Your task to perform on an android device: Go to eBay Image 0: 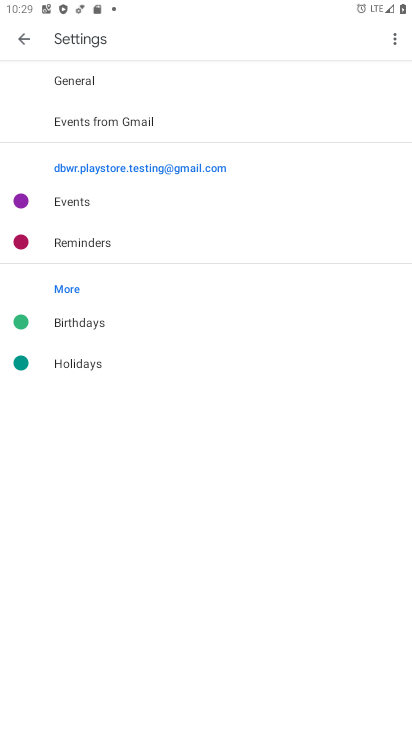
Step 0: press home button
Your task to perform on an android device: Go to eBay Image 1: 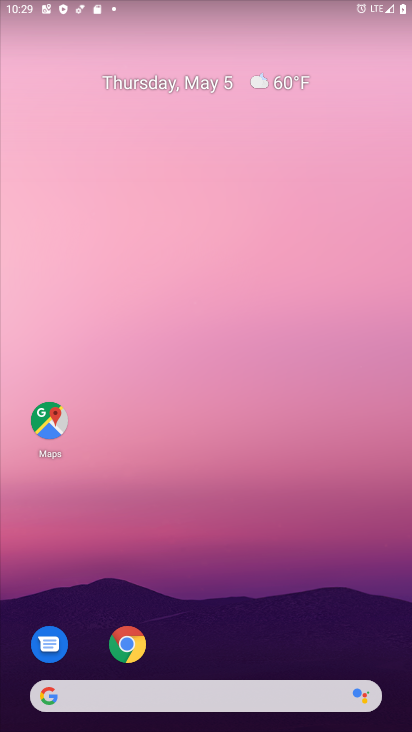
Step 1: click (128, 647)
Your task to perform on an android device: Go to eBay Image 2: 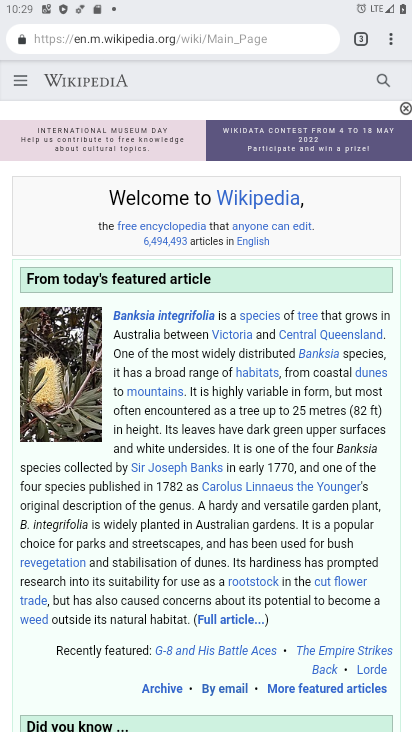
Step 2: click (203, 35)
Your task to perform on an android device: Go to eBay Image 3: 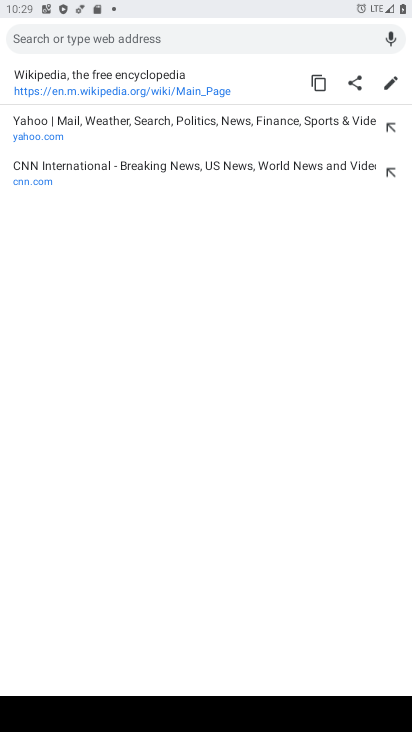
Step 3: type "ebay"
Your task to perform on an android device: Go to eBay Image 4: 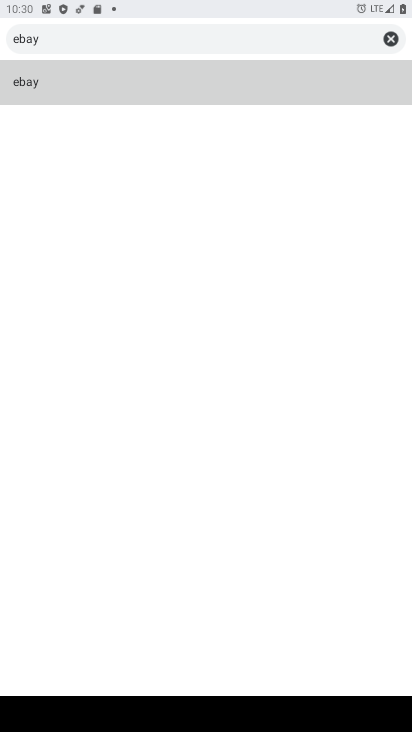
Step 4: click (48, 75)
Your task to perform on an android device: Go to eBay Image 5: 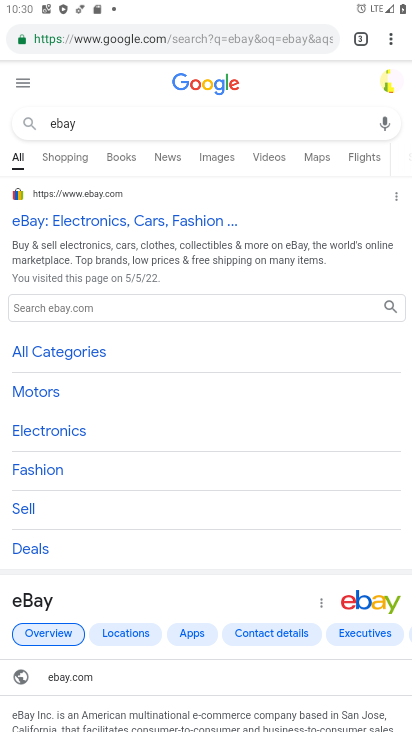
Step 5: task complete